Your task to perform on an android device: Go to accessibility settings Image 0: 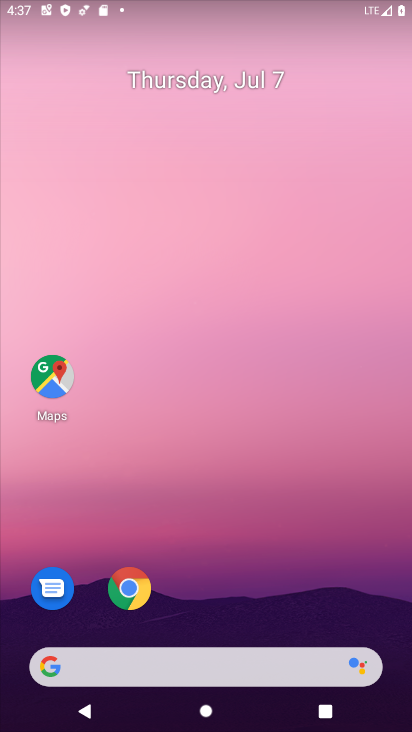
Step 0: drag from (205, 657) to (266, 3)
Your task to perform on an android device: Go to accessibility settings Image 1: 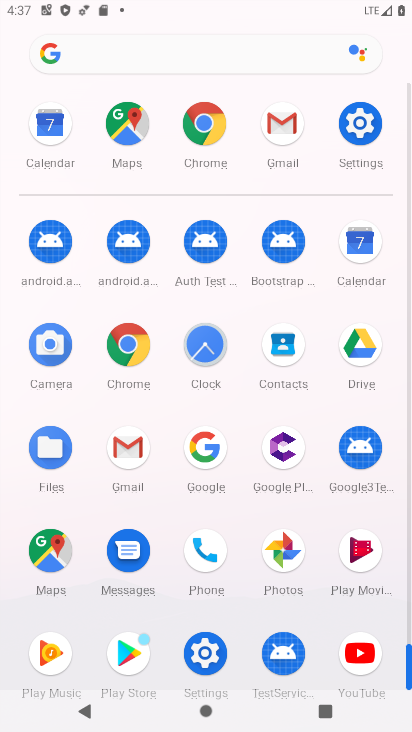
Step 1: click (381, 117)
Your task to perform on an android device: Go to accessibility settings Image 2: 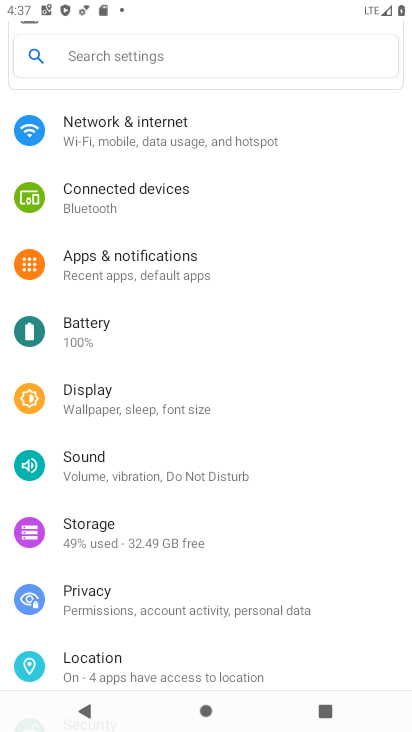
Step 2: drag from (162, 628) to (184, 113)
Your task to perform on an android device: Go to accessibility settings Image 3: 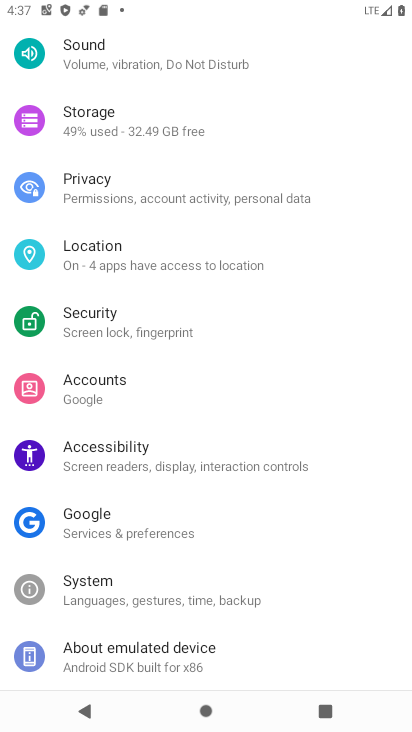
Step 3: click (125, 456)
Your task to perform on an android device: Go to accessibility settings Image 4: 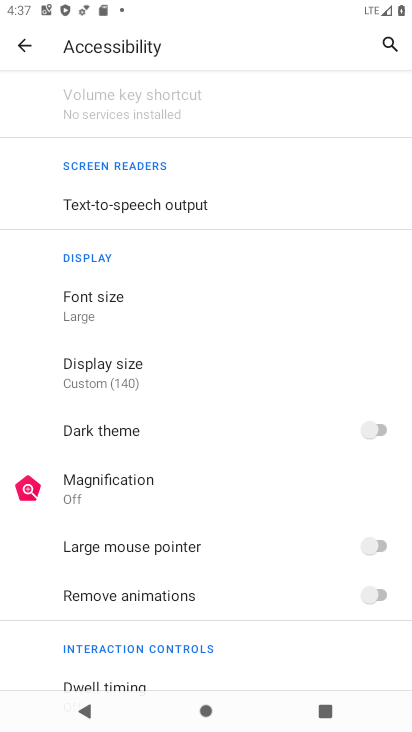
Step 4: task complete